Your task to perform on an android device: Clear all items from cart on target. Add logitech g pro to the cart on target, then select checkout. Image 0: 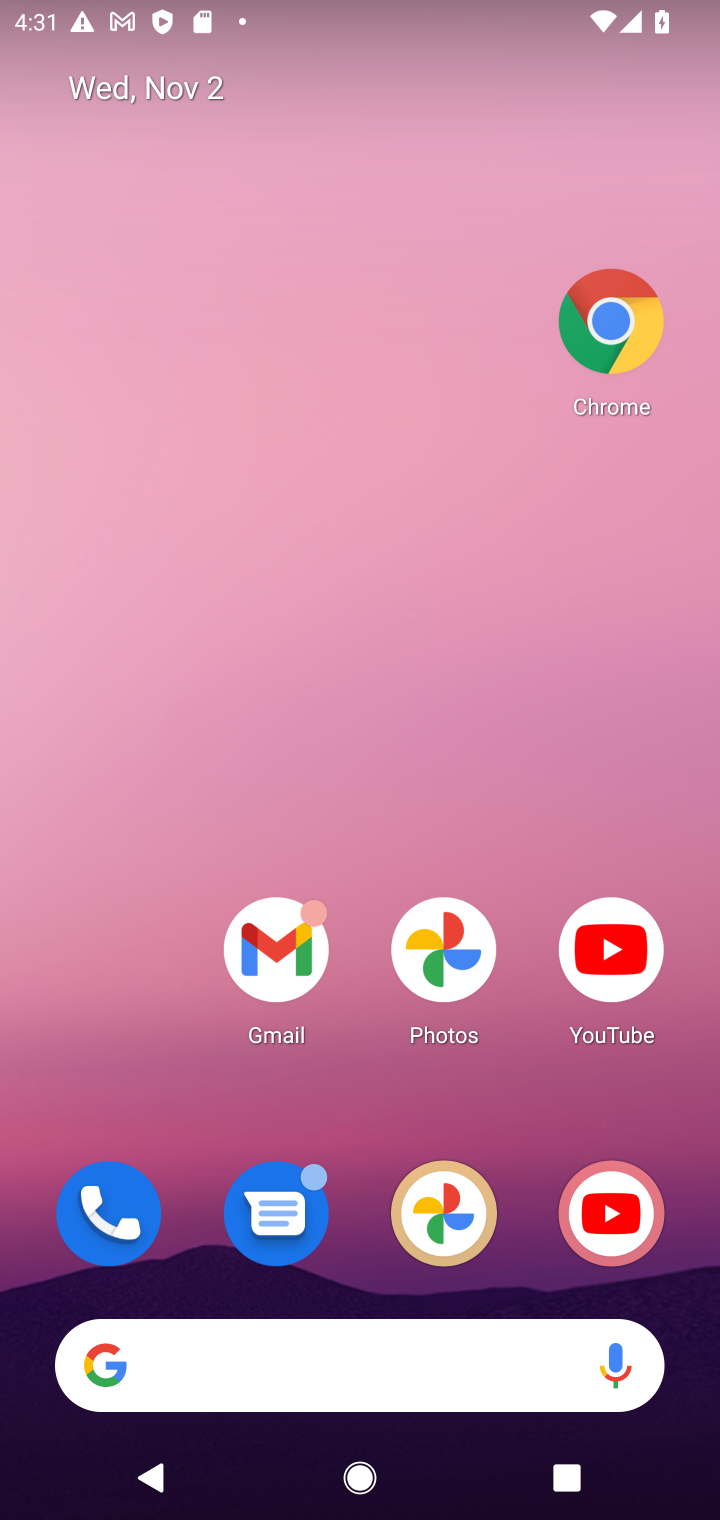
Step 0: drag from (413, 815) to (465, 519)
Your task to perform on an android device: Clear all items from cart on target. Add logitech g pro to the cart on target, then select checkout. Image 1: 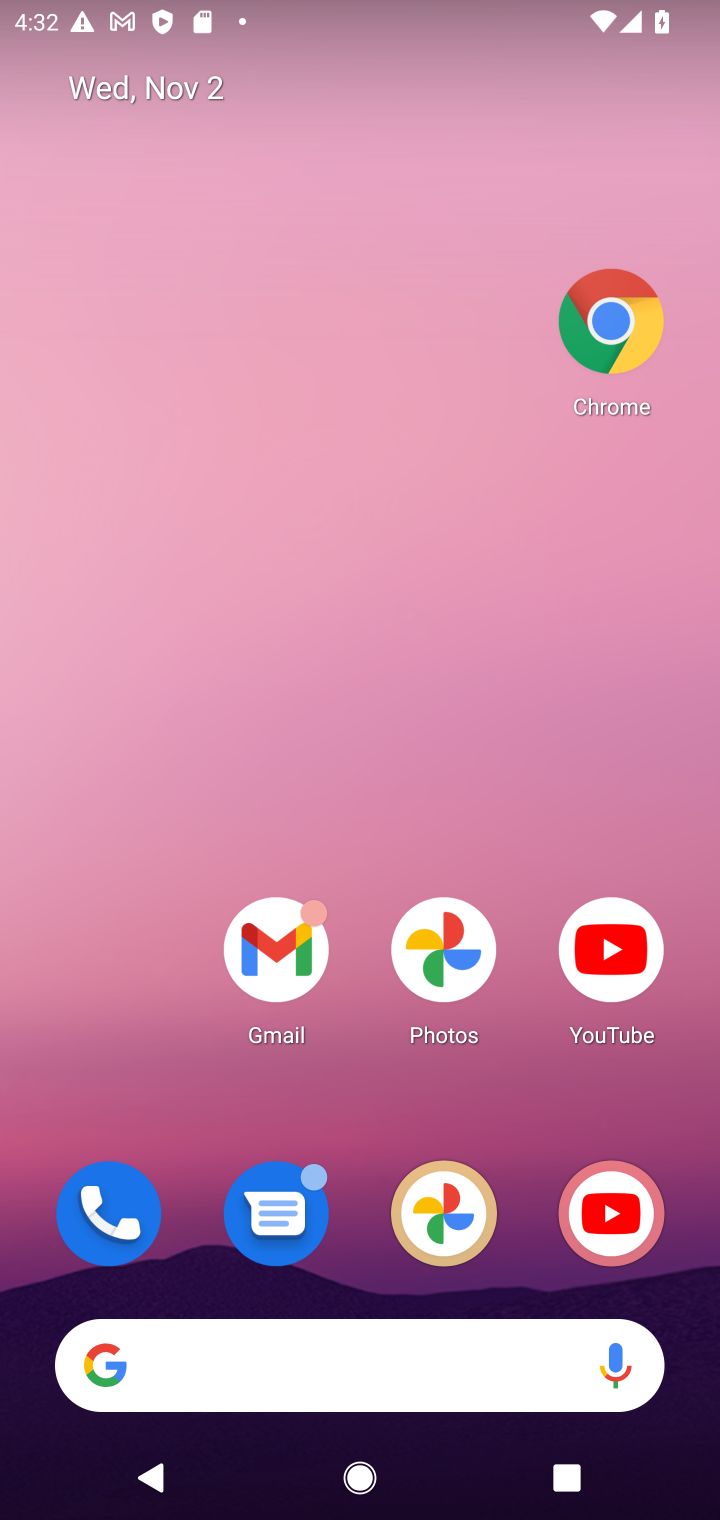
Step 1: drag from (367, 1198) to (513, 311)
Your task to perform on an android device: Clear all items from cart on target. Add logitech g pro to the cart on target, then select checkout. Image 2: 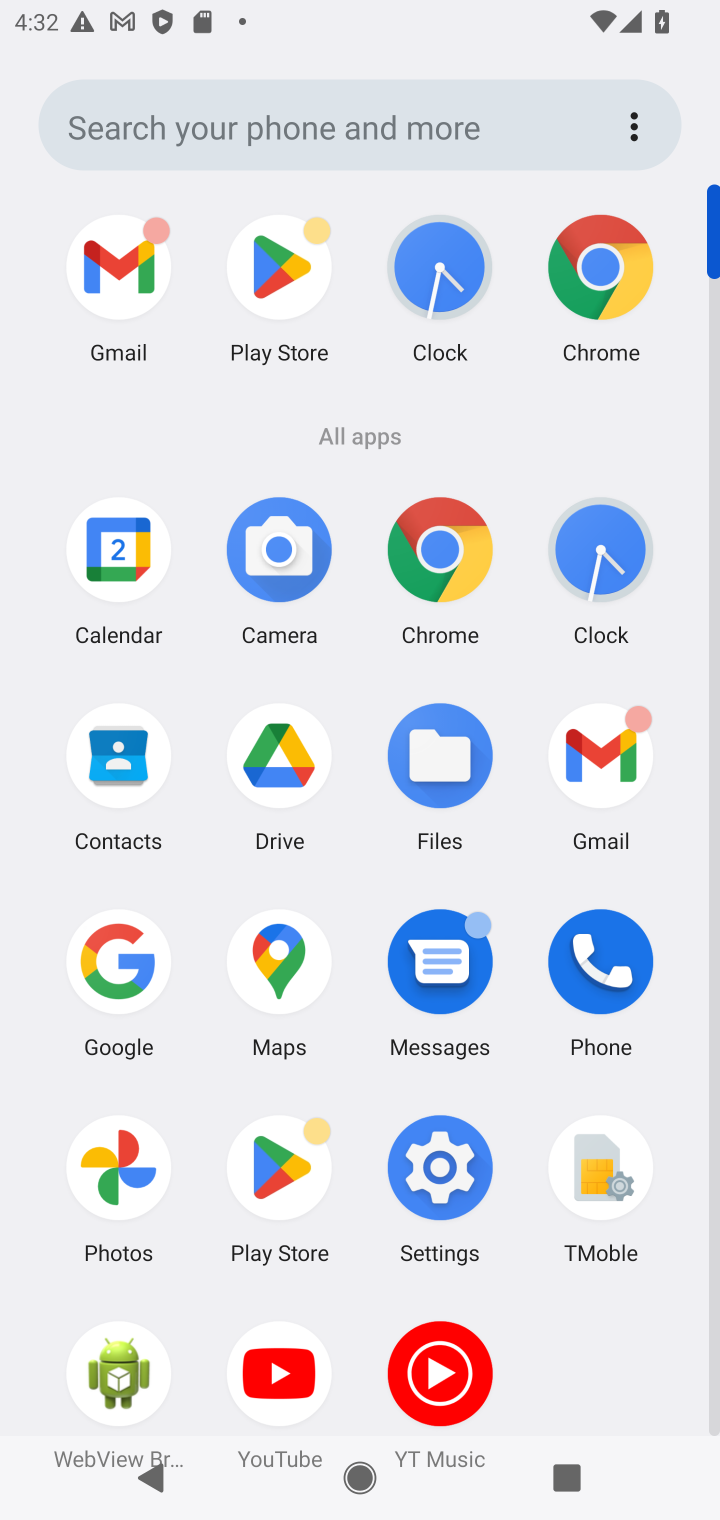
Step 2: click (126, 1003)
Your task to perform on an android device: Clear all items from cart on target. Add logitech g pro to the cart on target, then select checkout. Image 3: 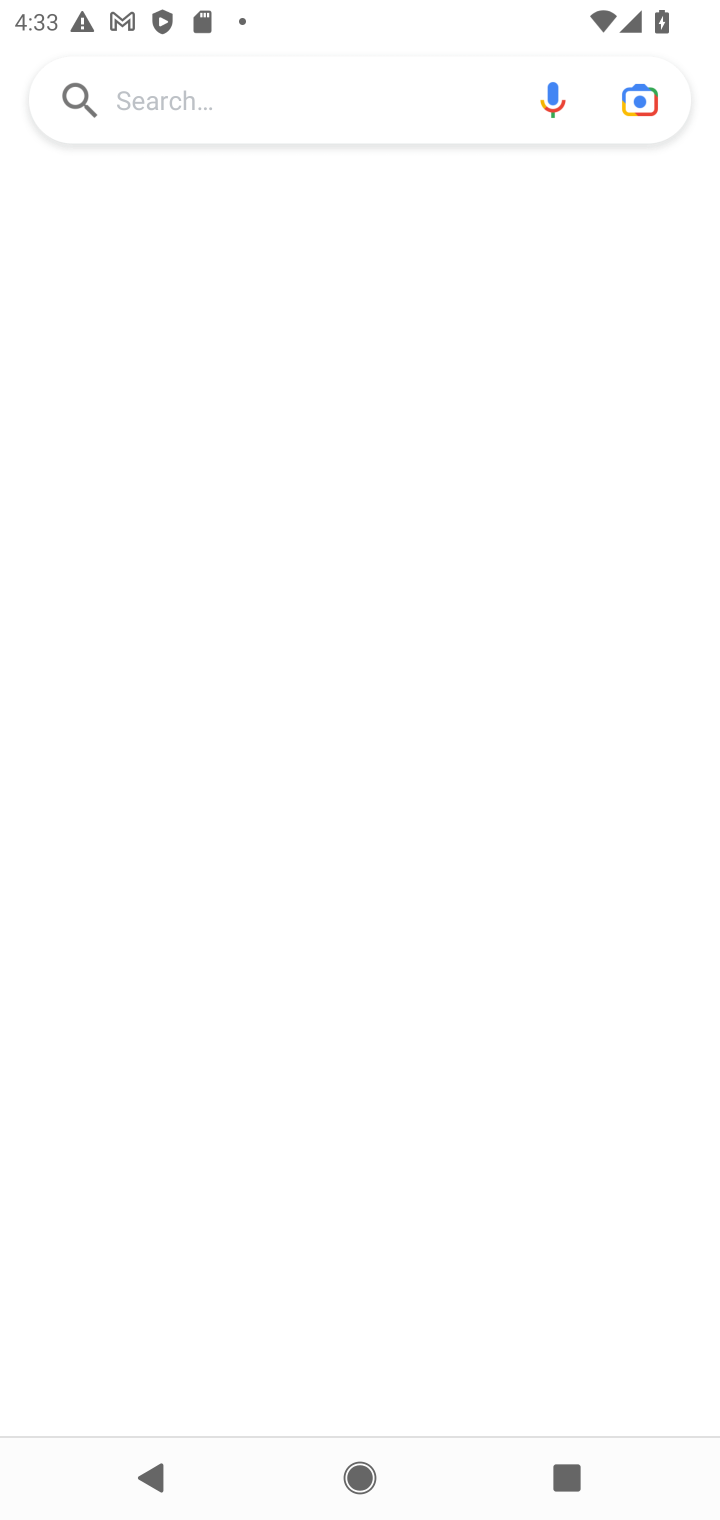
Step 3: click (397, 103)
Your task to perform on an android device: Clear all items from cart on target. Add logitech g pro to the cart on target, then select checkout. Image 4: 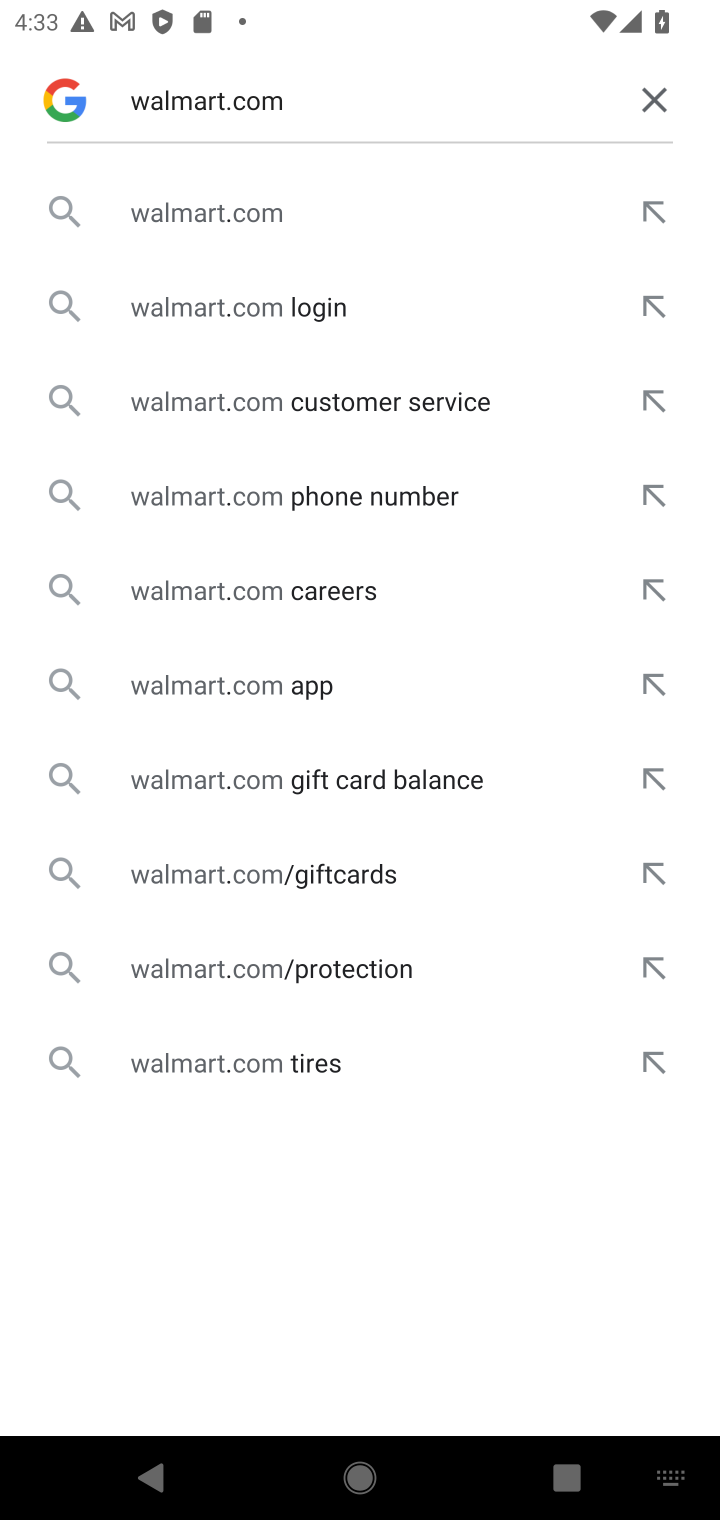
Step 4: click (649, 84)
Your task to perform on an android device: Clear all items from cart on target. Add logitech g pro to the cart on target, then select checkout. Image 5: 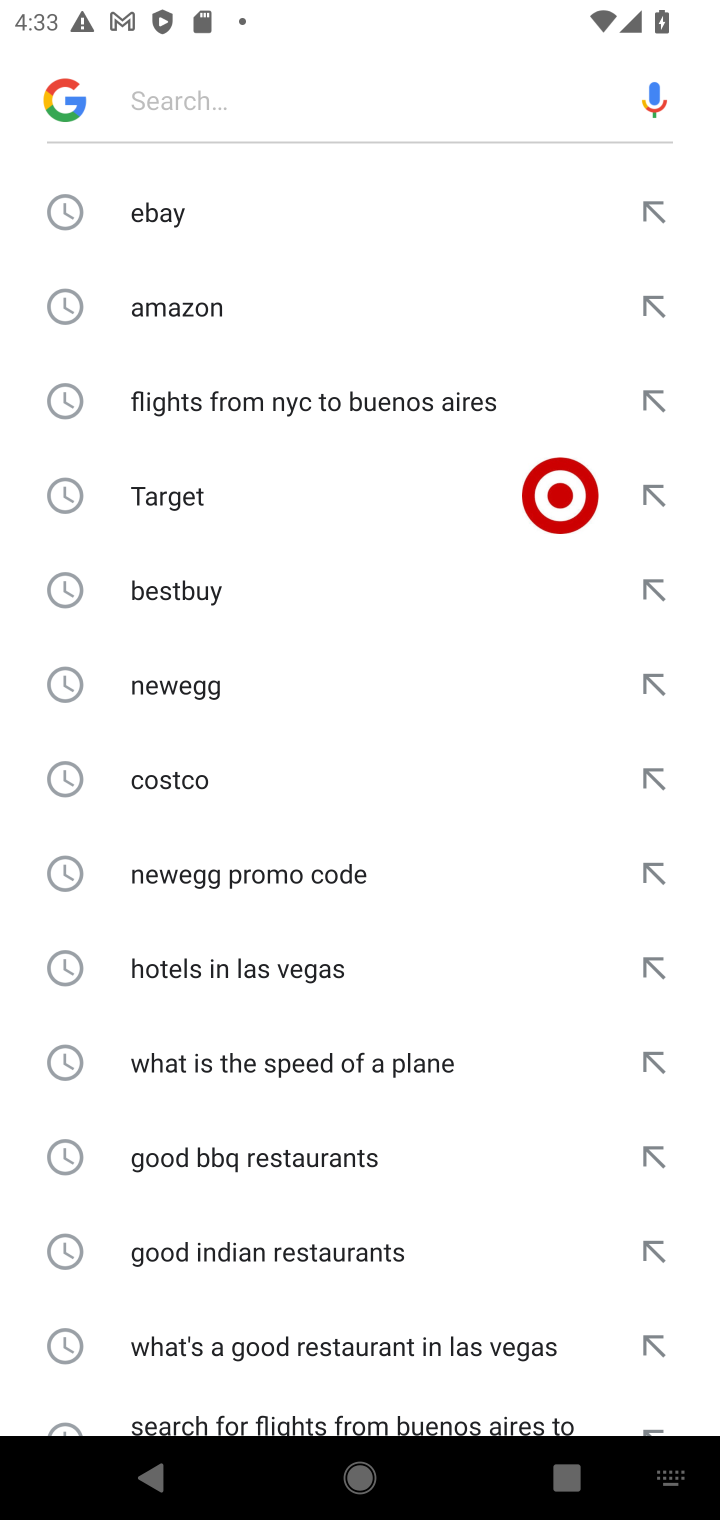
Step 5: type "target"
Your task to perform on an android device: Clear all items from cart on target. Add logitech g pro to the cart on target, then select checkout. Image 6: 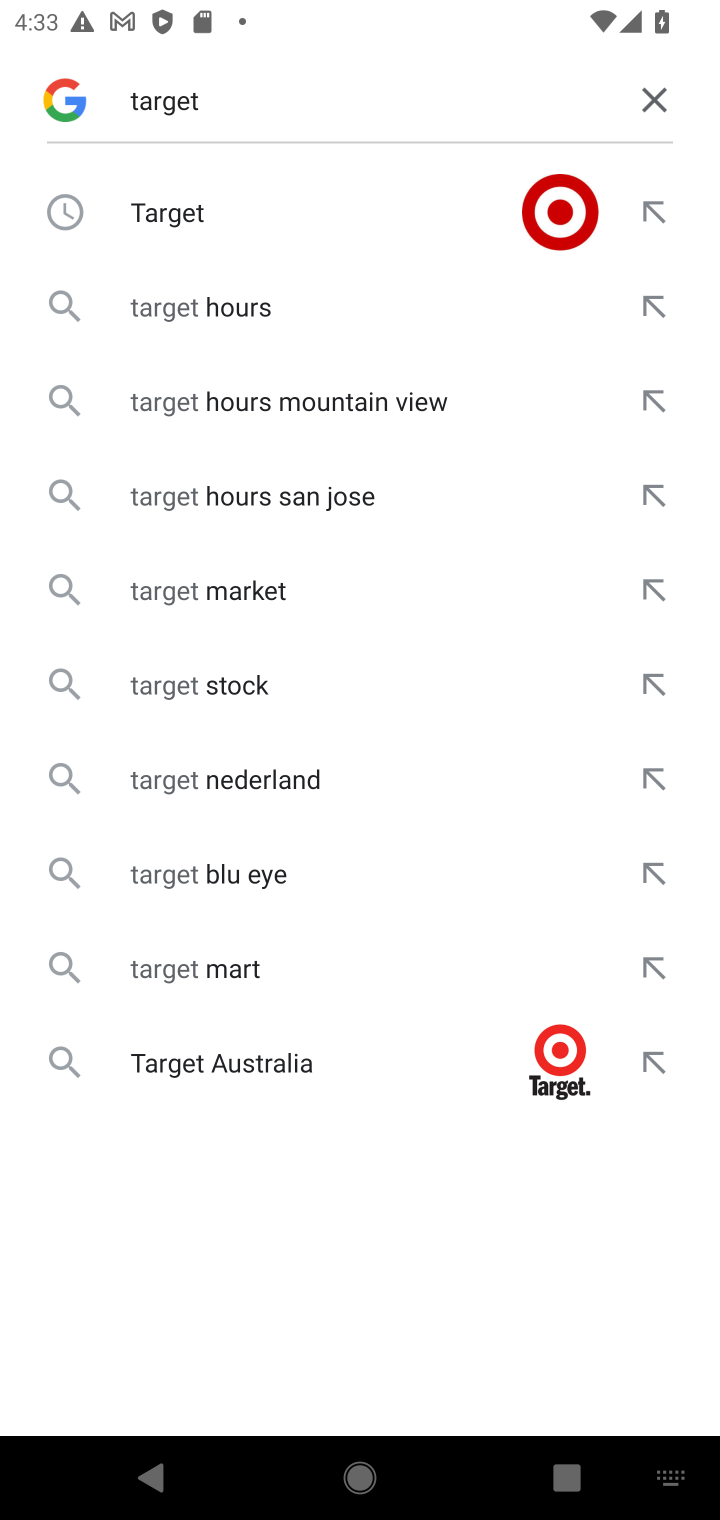
Step 6: click (193, 205)
Your task to perform on an android device: Clear all items from cart on target. Add logitech g pro to the cart on target, then select checkout. Image 7: 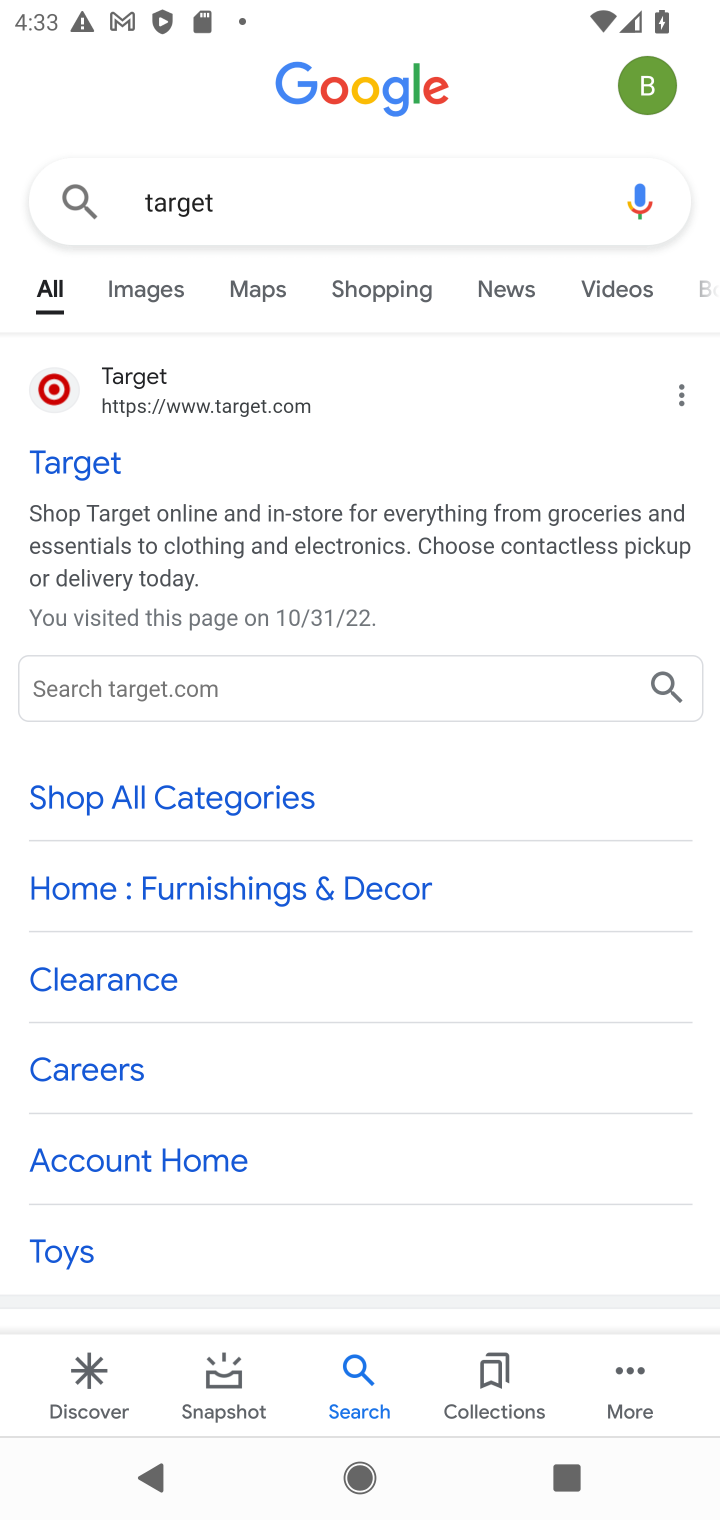
Step 7: click (92, 468)
Your task to perform on an android device: Clear all items from cart on target. Add logitech g pro to the cart on target, then select checkout. Image 8: 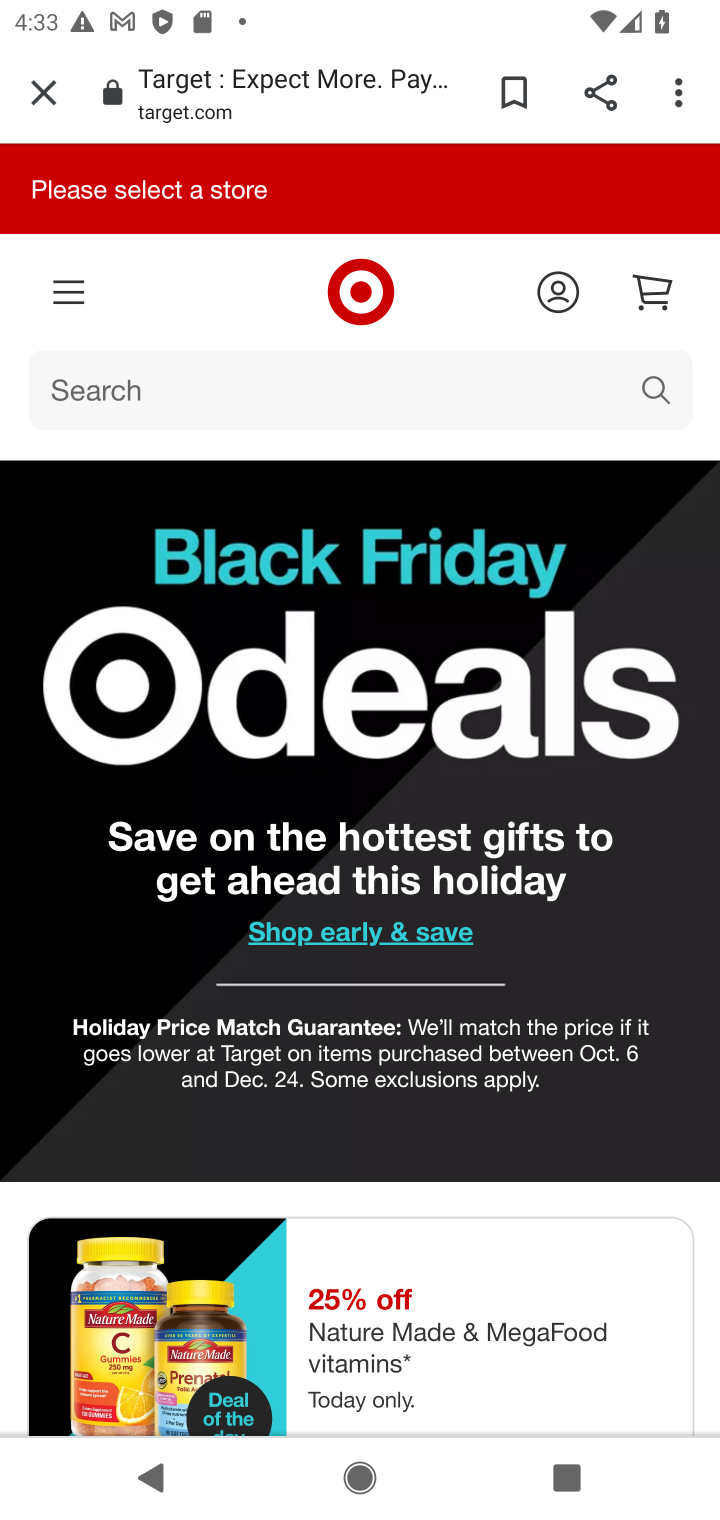
Step 8: click (653, 296)
Your task to perform on an android device: Clear all items from cart on target. Add logitech g pro to the cart on target, then select checkout. Image 9: 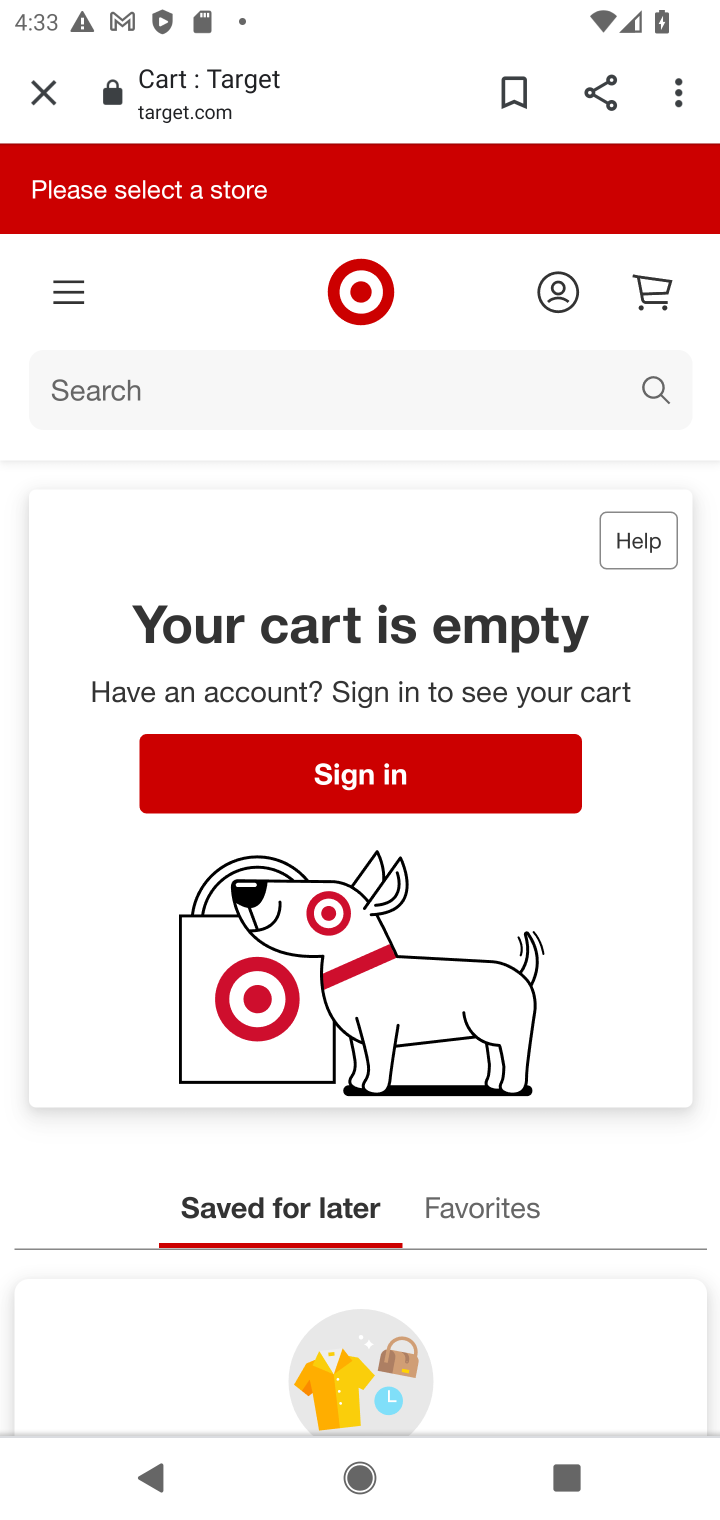
Step 9: task complete